Your task to perform on an android device: Open calendar and show me the first week of next month Image 0: 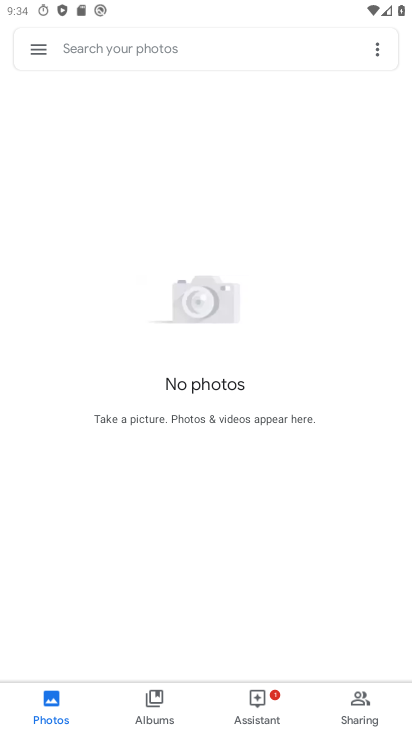
Step 0: press home button
Your task to perform on an android device: Open calendar and show me the first week of next month Image 1: 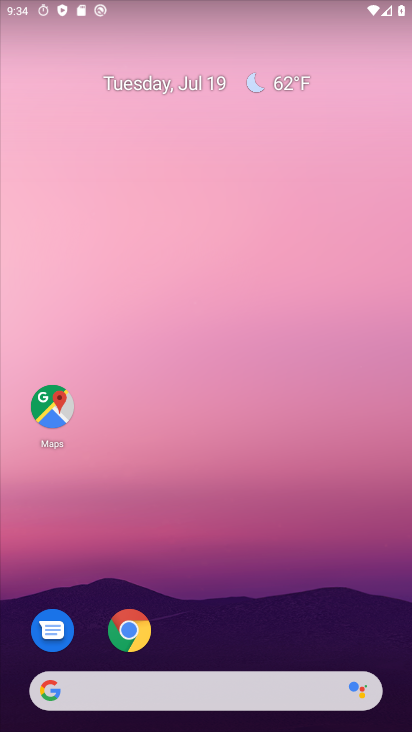
Step 1: drag from (241, 682) to (269, 197)
Your task to perform on an android device: Open calendar and show me the first week of next month Image 2: 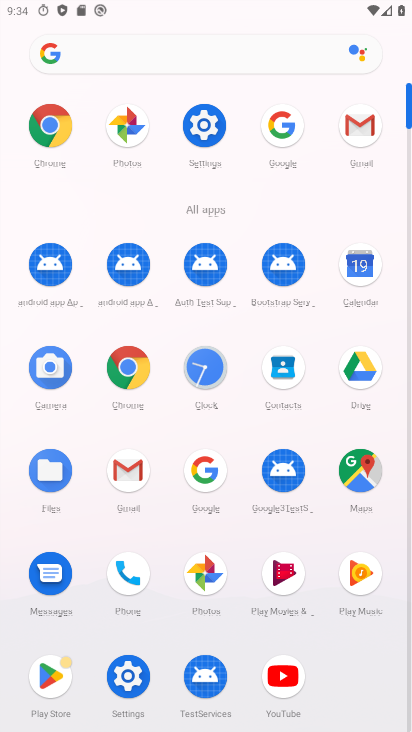
Step 2: click (368, 271)
Your task to perform on an android device: Open calendar and show me the first week of next month Image 3: 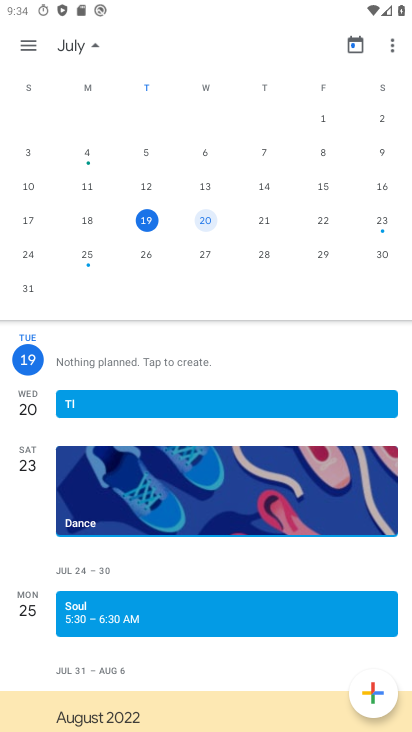
Step 3: drag from (363, 240) to (14, 193)
Your task to perform on an android device: Open calendar and show me the first week of next month Image 4: 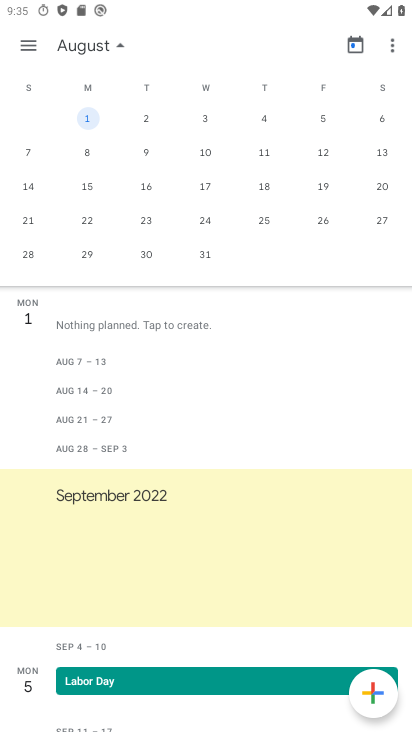
Step 4: click (87, 114)
Your task to perform on an android device: Open calendar and show me the first week of next month Image 5: 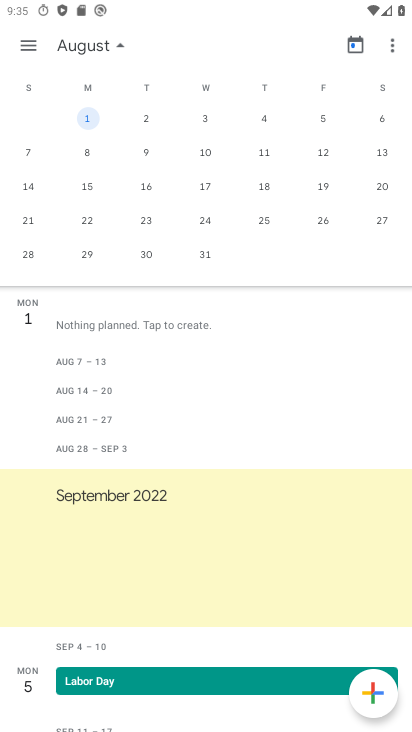
Step 5: task complete